Your task to perform on an android device: turn on showing notifications on the lock screen Image 0: 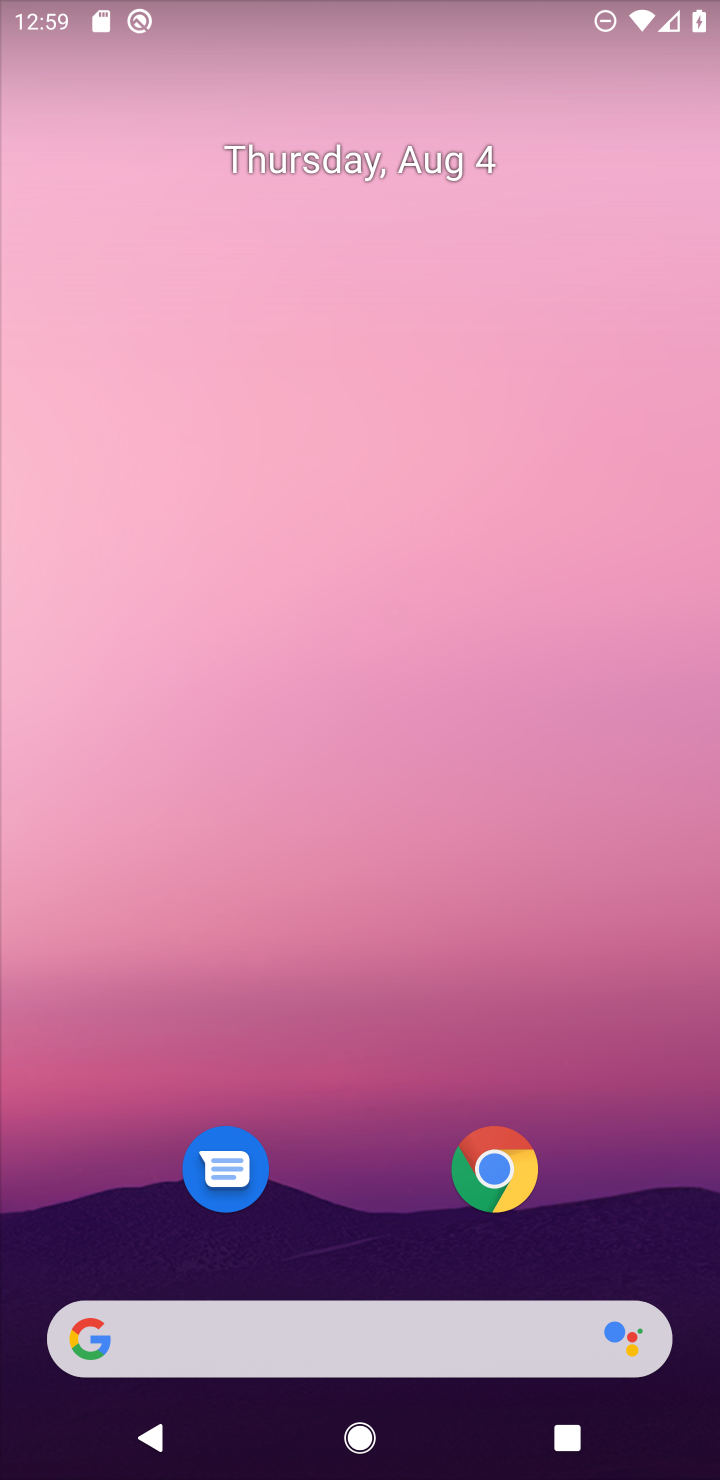
Step 0: drag from (402, 1216) to (458, 84)
Your task to perform on an android device: turn on showing notifications on the lock screen Image 1: 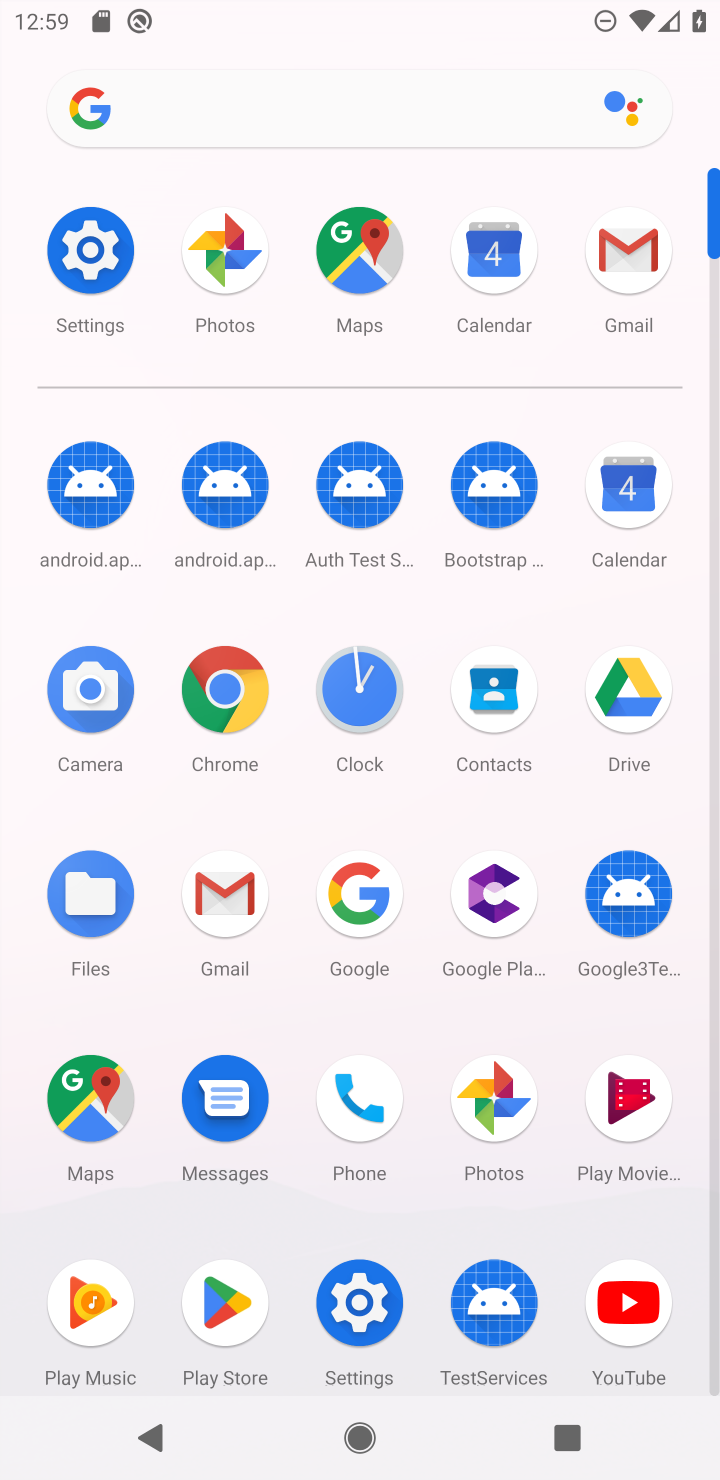
Step 1: click (99, 251)
Your task to perform on an android device: turn on showing notifications on the lock screen Image 2: 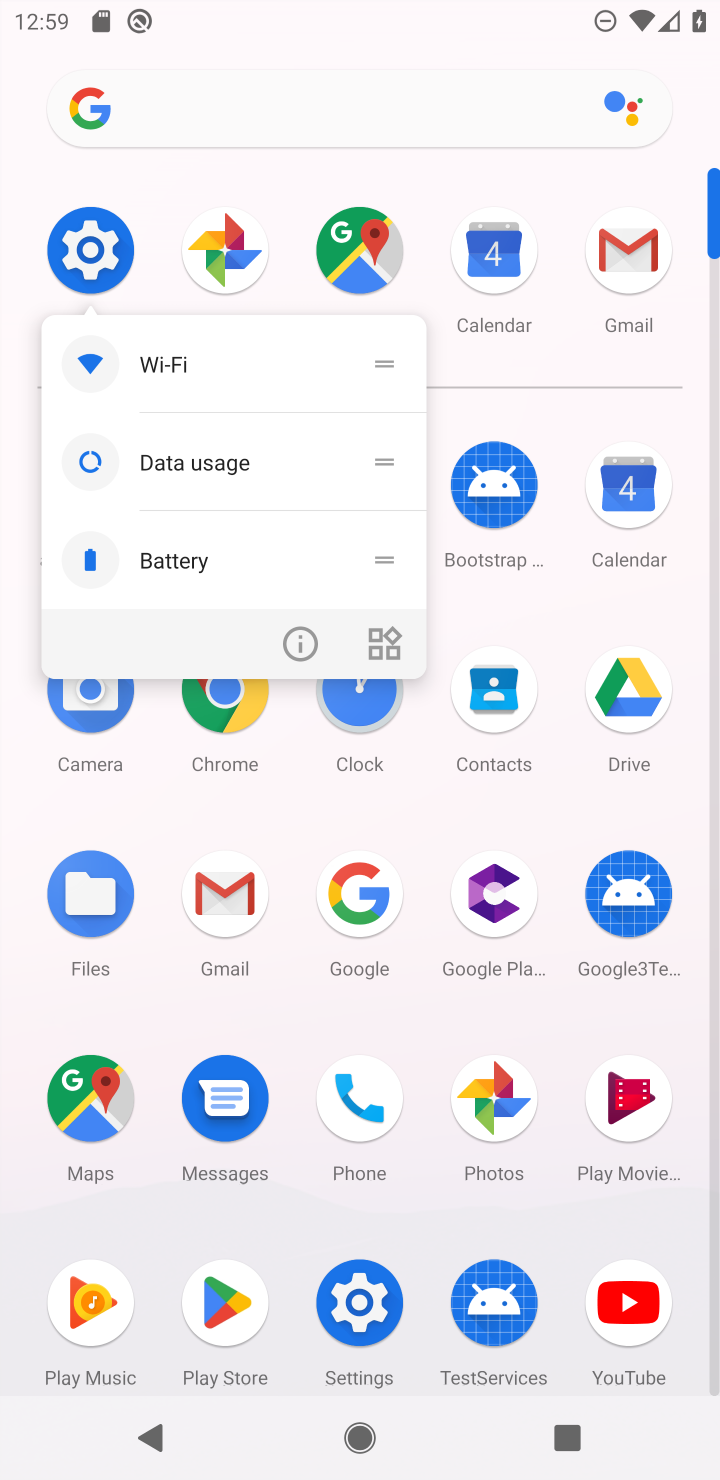
Step 2: click (99, 251)
Your task to perform on an android device: turn on showing notifications on the lock screen Image 3: 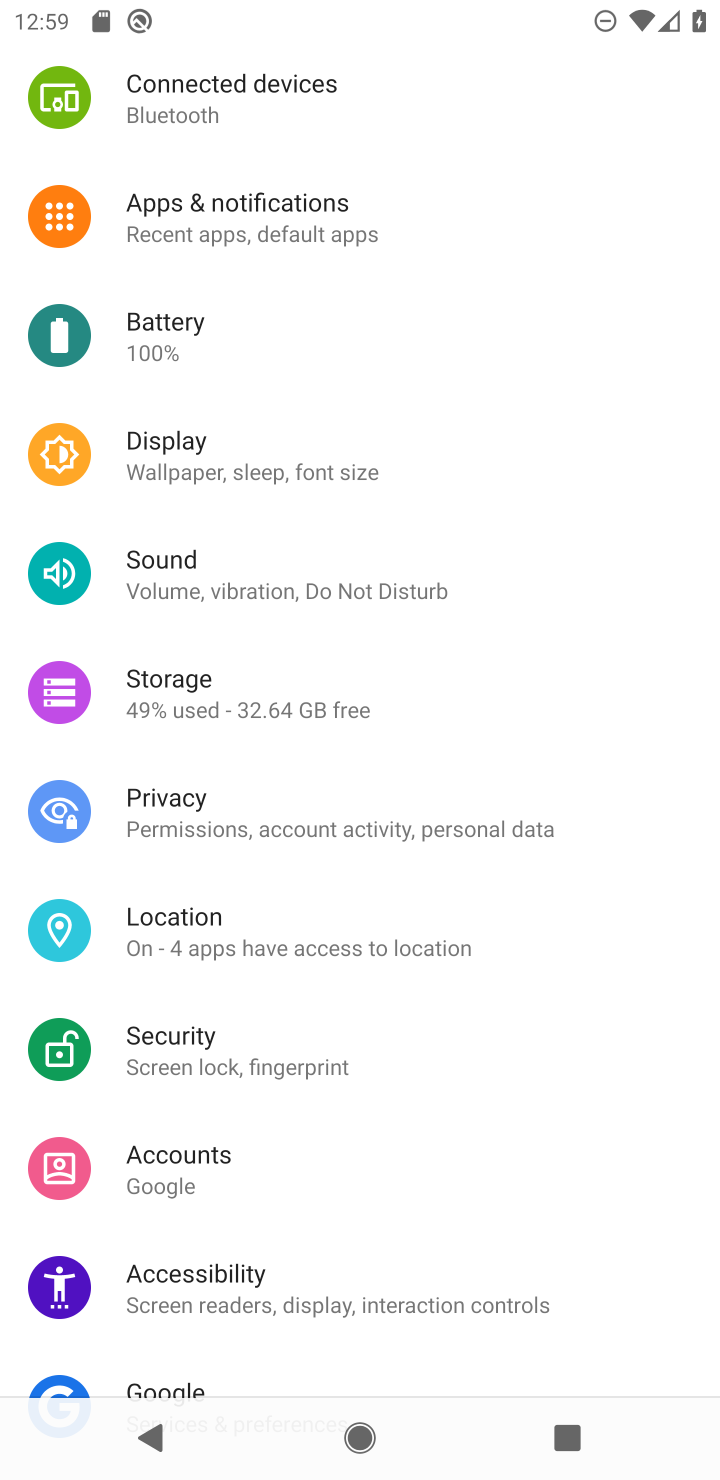
Step 3: click (181, 224)
Your task to perform on an android device: turn on showing notifications on the lock screen Image 4: 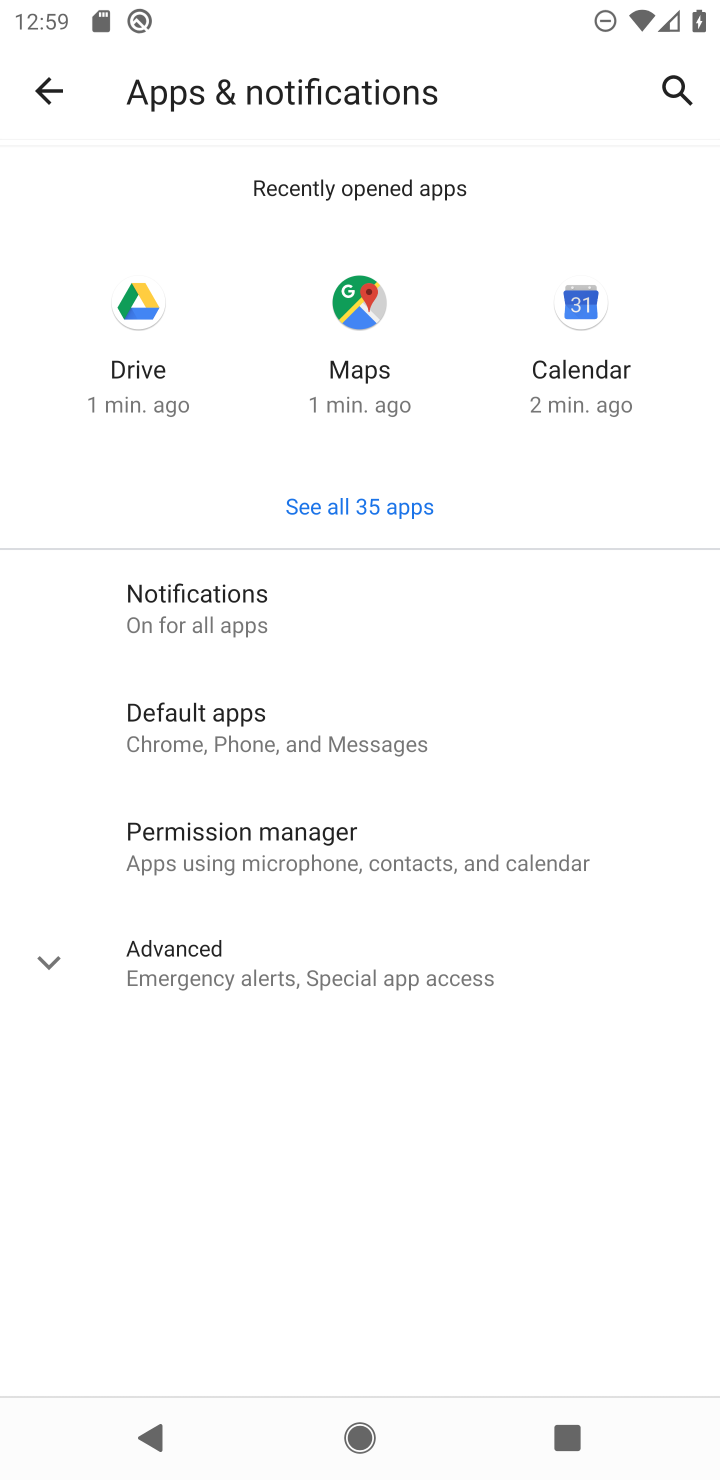
Step 4: click (180, 633)
Your task to perform on an android device: turn on showing notifications on the lock screen Image 5: 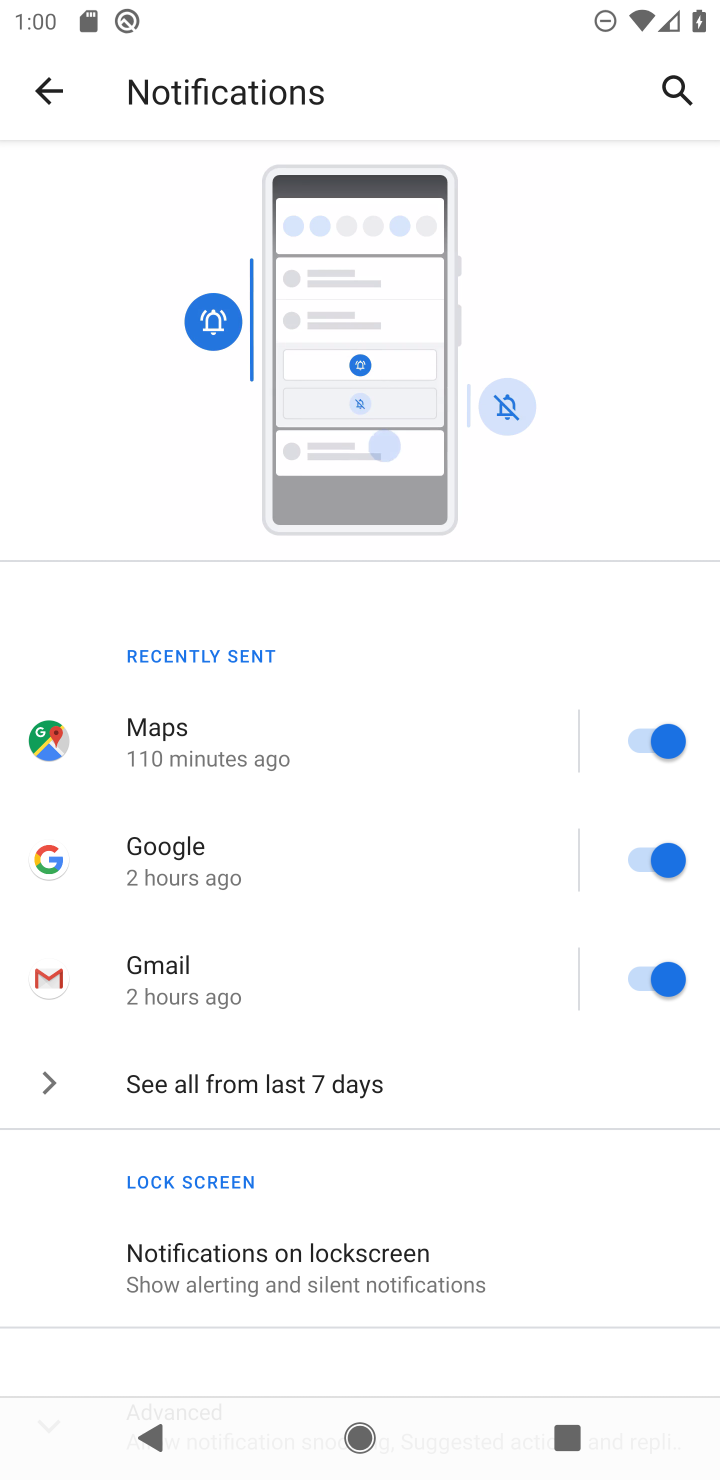
Step 5: click (219, 1259)
Your task to perform on an android device: turn on showing notifications on the lock screen Image 6: 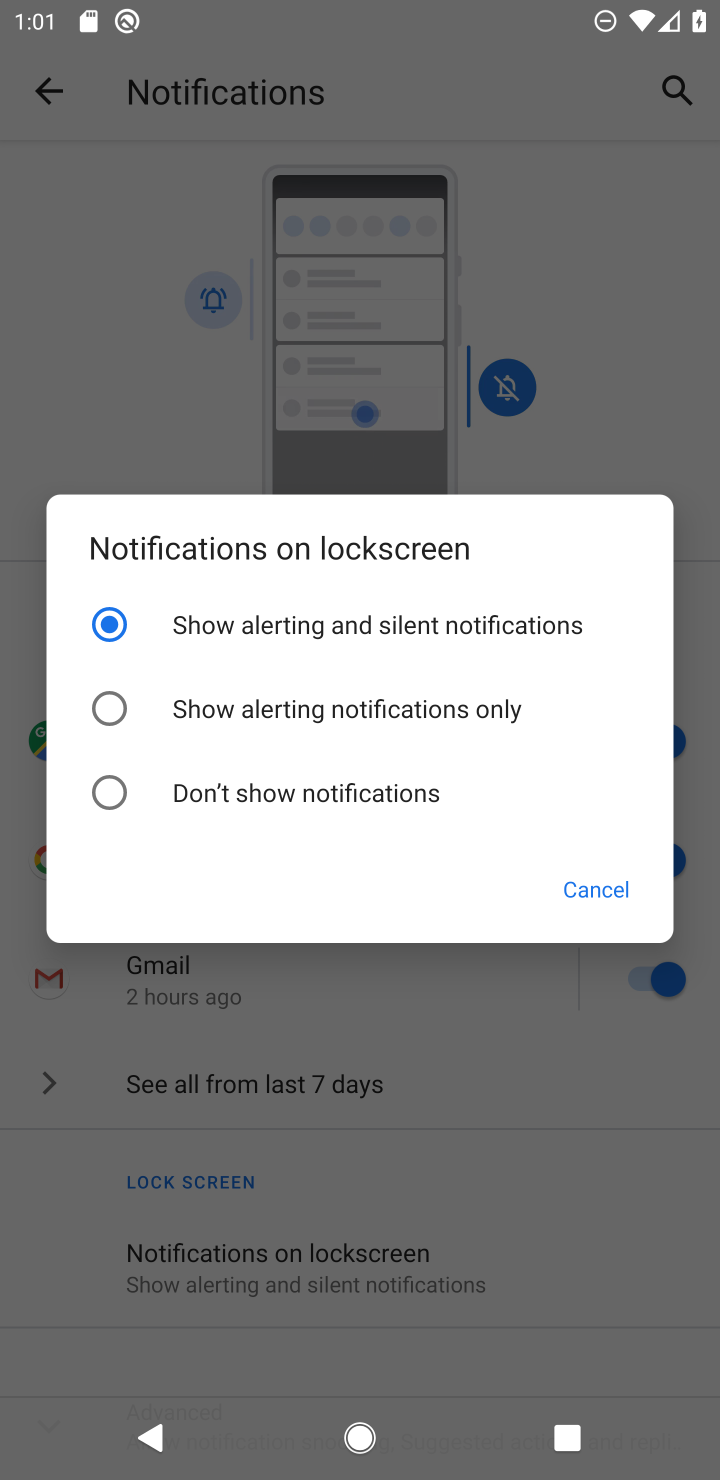
Step 6: task complete